Your task to perform on an android device: Search for logitech g903 on bestbuy.com, select the first entry, and add it to the cart. Image 0: 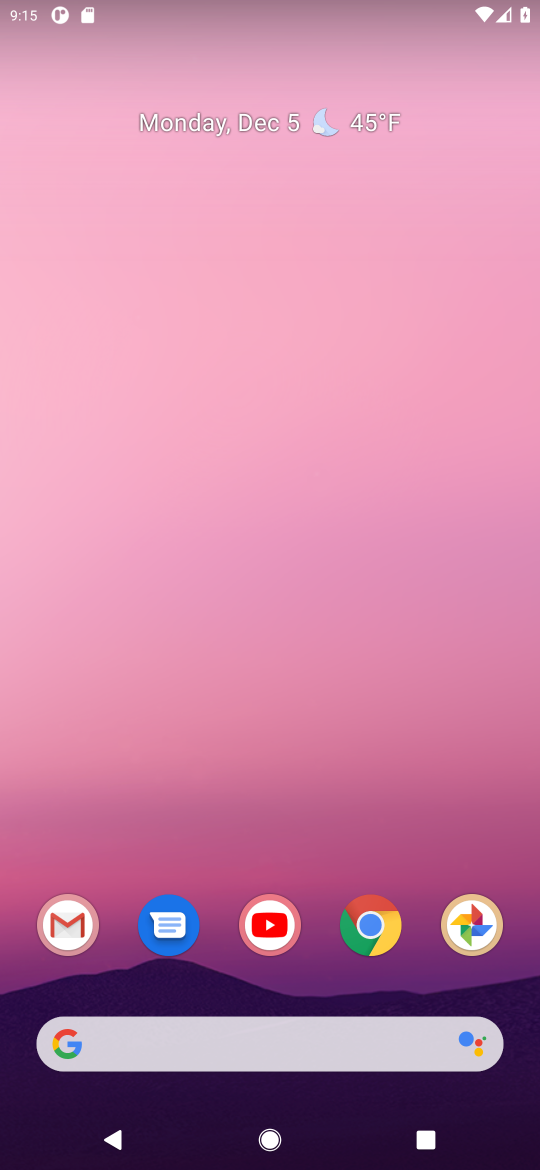
Step 0: click (382, 921)
Your task to perform on an android device: Search for logitech g903 on bestbuy.com, select the first entry, and add it to the cart. Image 1: 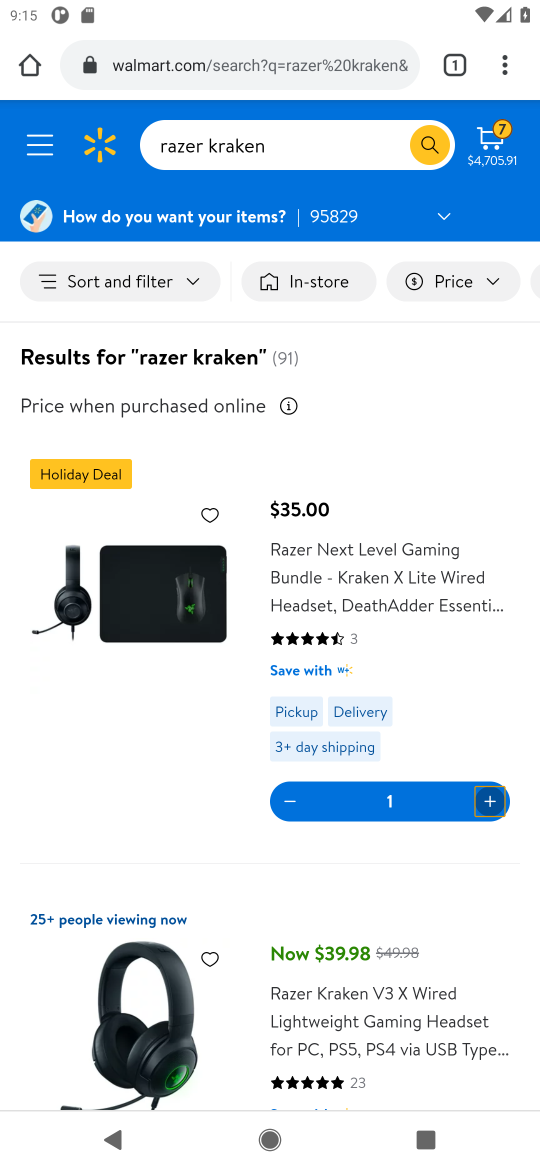
Step 1: click (221, 63)
Your task to perform on an android device: Search for logitech g903 on bestbuy.com, select the first entry, and add it to the cart. Image 2: 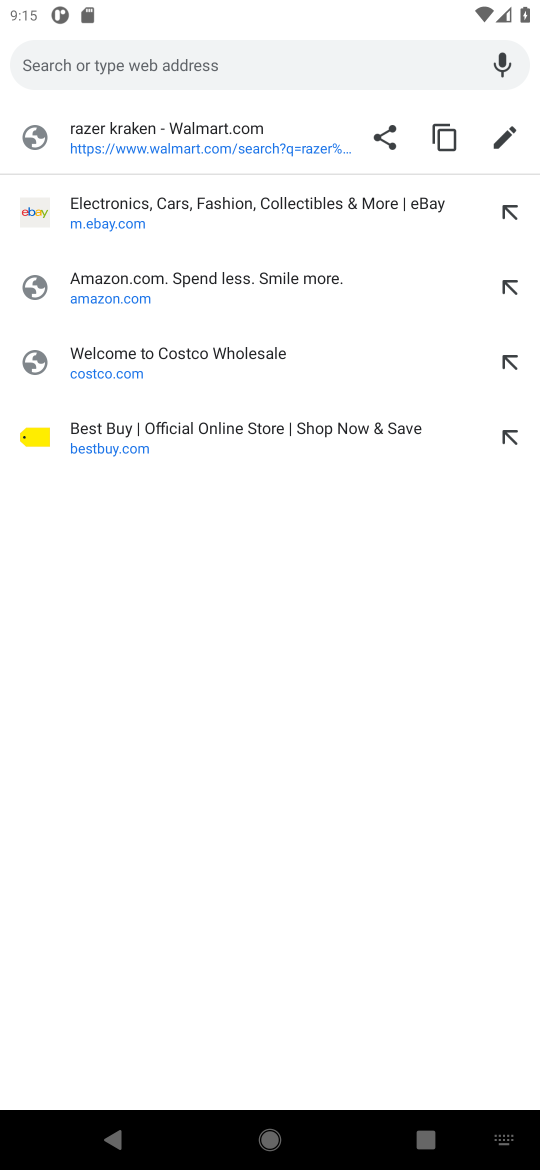
Step 2: click (95, 441)
Your task to perform on an android device: Search for logitech g903 on bestbuy.com, select the first entry, and add it to the cart. Image 3: 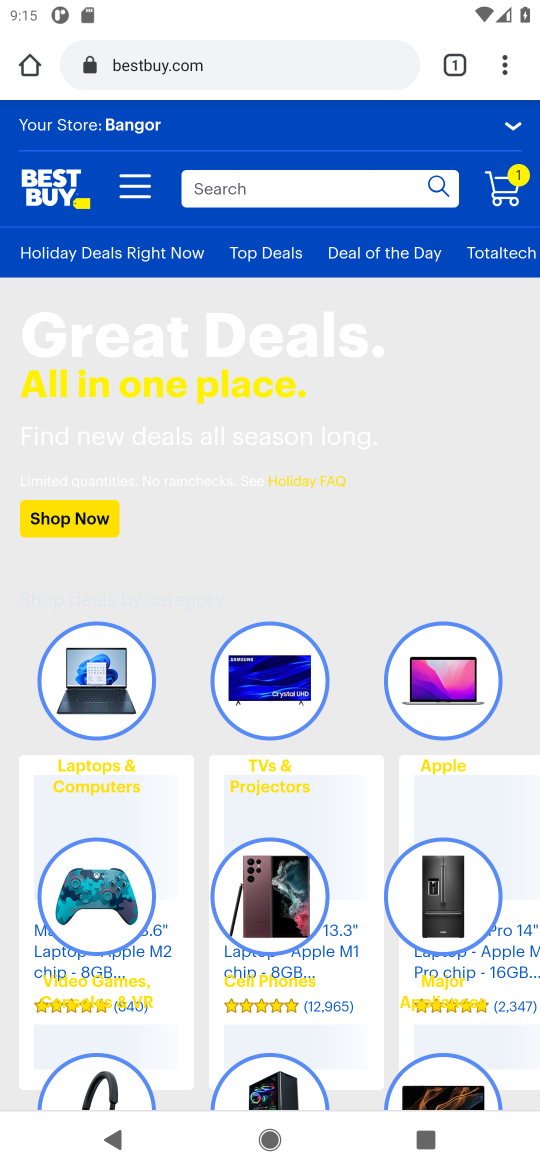
Step 3: click (243, 194)
Your task to perform on an android device: Search for logitech g903 on bestbuy.com, select the first entry, and add it to the cart. Image 4: 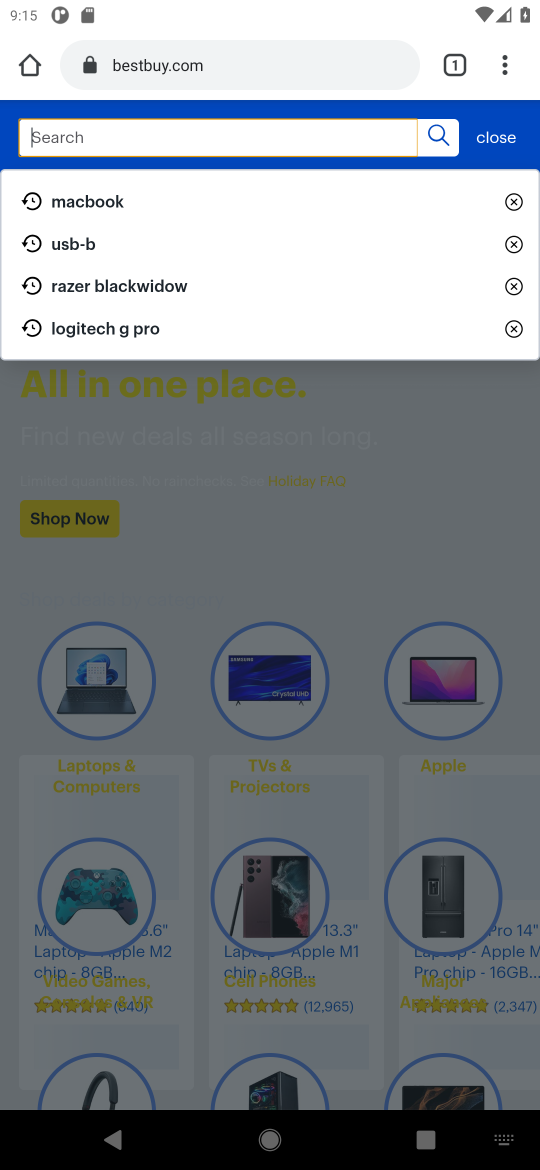
Step 4: type " logitech g903"
Your task to perform on an android device: Search for logitech g903 on bestbuy.com, select the first entry, and add it to the cart. Image 5: 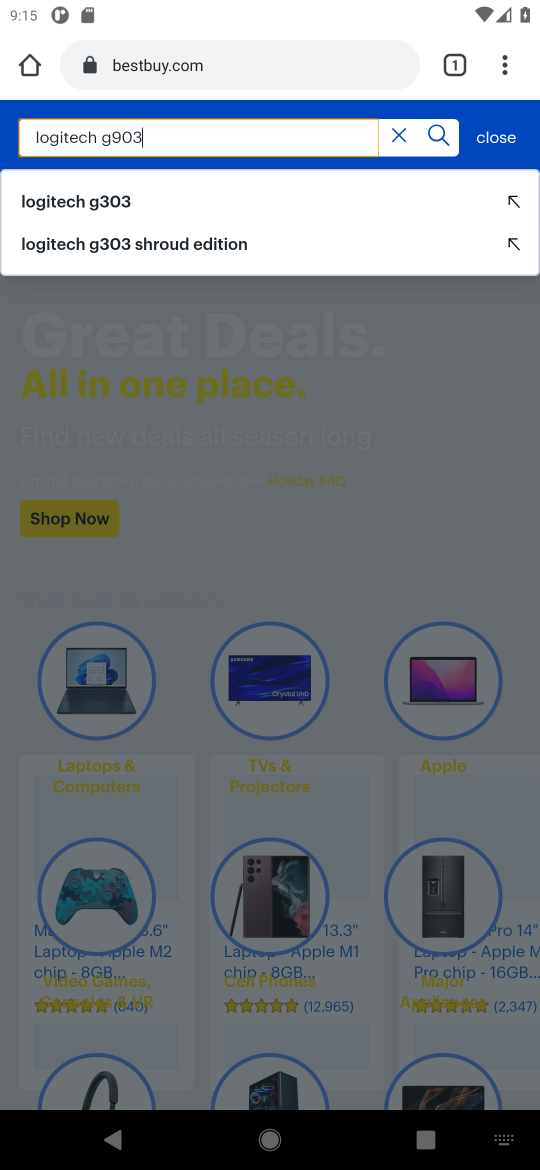
Step 5: click (436, 137)
Your task to perform on an android device: Search for logitech g903 on bestbuy.com, select the first entry, and add it to the cart. Image 6: 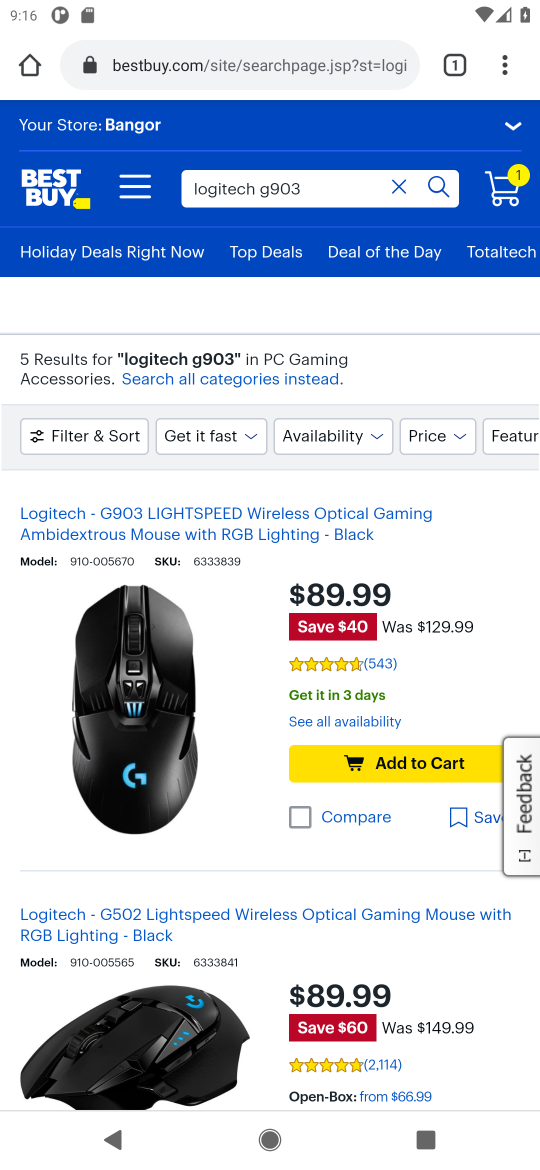
Step 6: click (394, 755)
Your task to perform on an android device: Search for logitech g903 on bestbuy.com, select the first entry, and add it to the cart. Image 7: 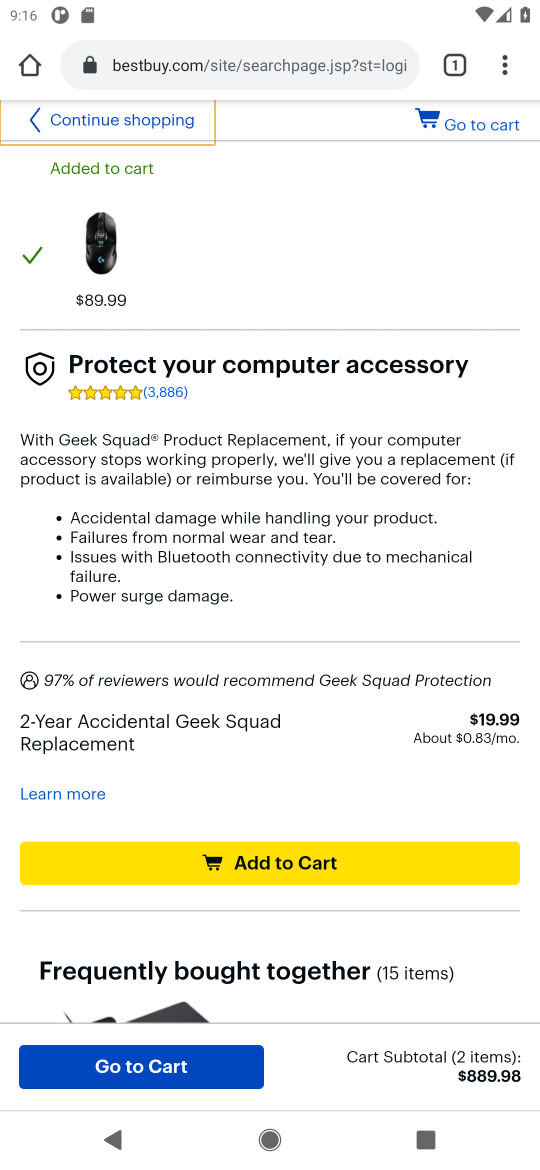
Step 7: task complete